Your task to perform on an android device: Open ESPN.com Image 0: 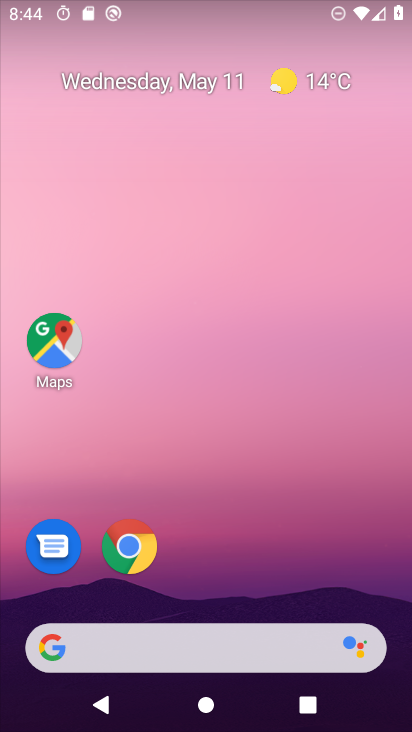
Step 0: click (155, 538)
Your task to perform on an android device: Open ESPN.com Image 1: 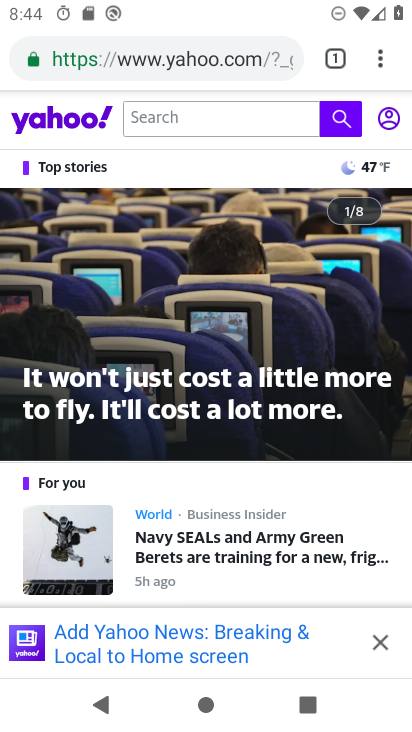
Step 1: click (206, 67)
Your task to perform on an android device: Open ESPN.com Image 2: 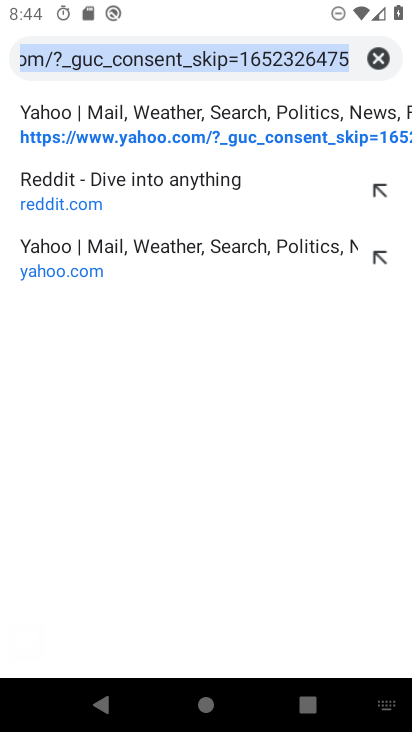
Step 2: type "espn.com"
Your task to perform on an android device: Open ESPN.com Image 3: 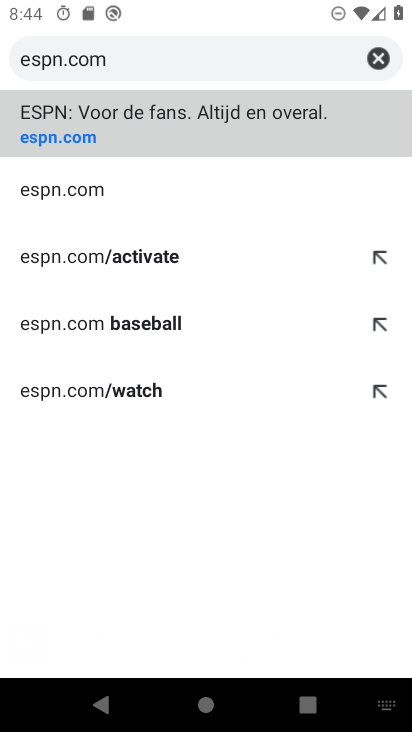
Step 3: click (242, 136)
Your task to perform on an android device: Open ESPN.com Image 4: 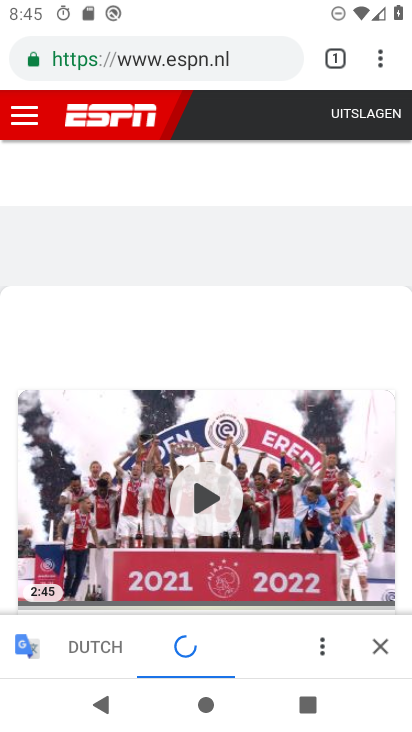
Step 4: task complete